Your task to perform on an android device: Open notification settings Image 0: 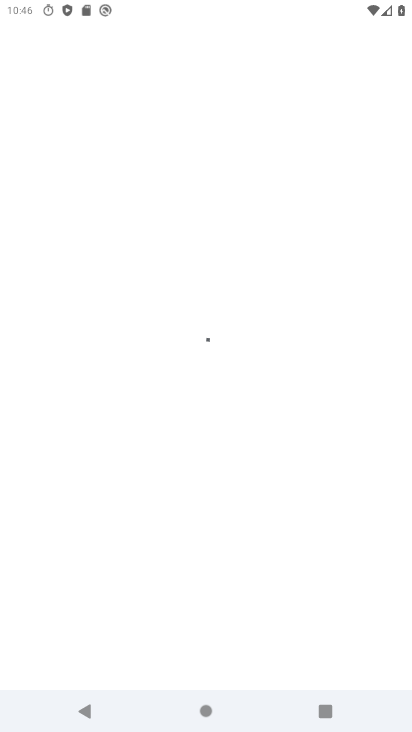
Step 0: press home button
Your task to perform on an android device: Open notification settings Image 1: 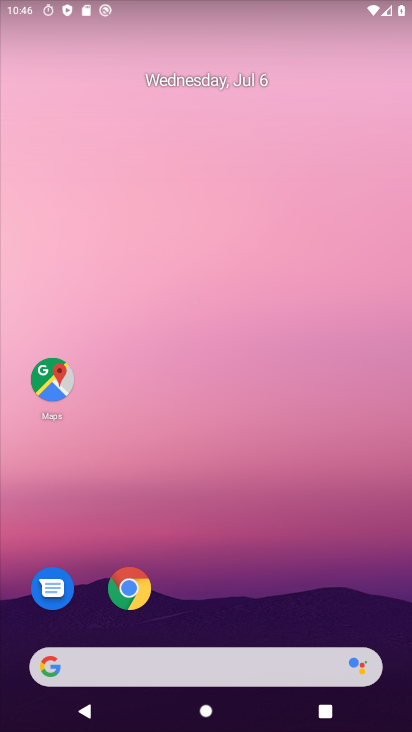
Step 1: drag from (228, 660) to (215, 215)
Your task to perform on an android device: Open notification settings Image 2: 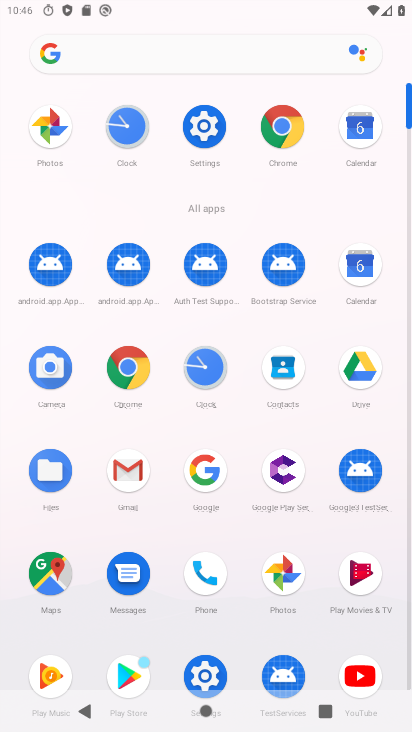
Step 2: click (200, 123)
Your task to perform on an android device: Open notification settings Image 3: 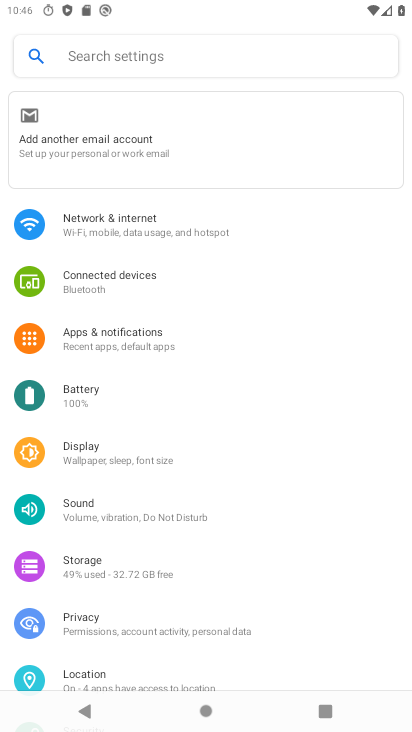
Step 3: click (116, 338)
Your task to perform on an android device: Open notification settings Image 4: 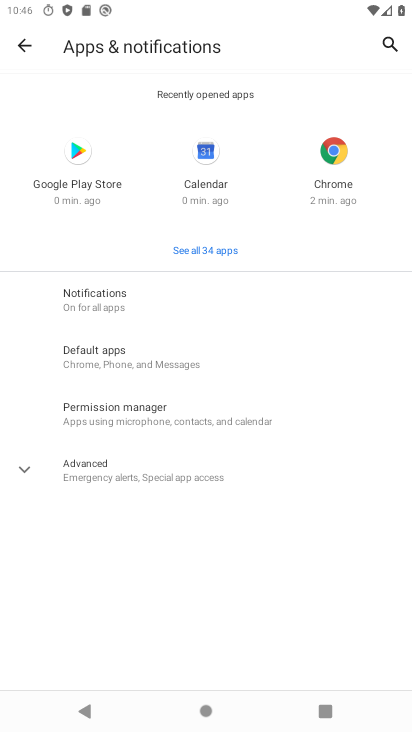
Step 4: click (85, 300)
Your task to perform on an android device: Open notification settings Image 5: 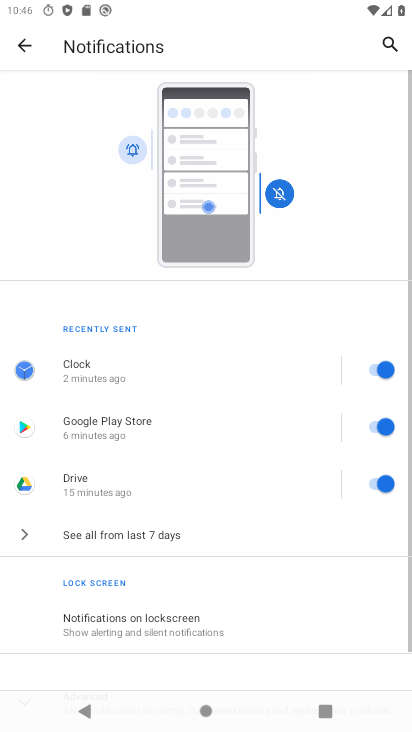
Step 5: task complete